Your task to perform on an android device: change keyboard looks Image 0: 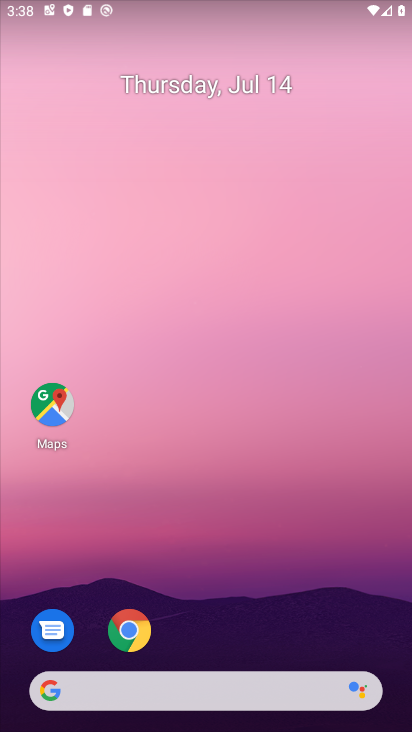
Step 0: drag from (222, 725) to (221, 601)
Your task to perform on an android device: change keyboard looks Image 1: 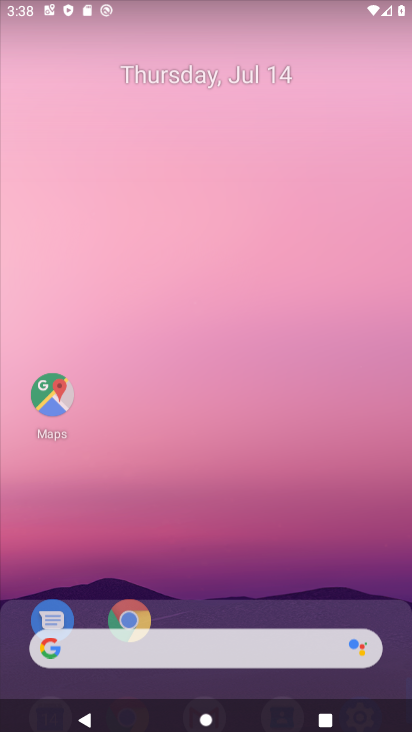
Step 1: drag from (212, 270) to (212, 93)
Your task to perform on an android device: change keyboard looks Image 2: 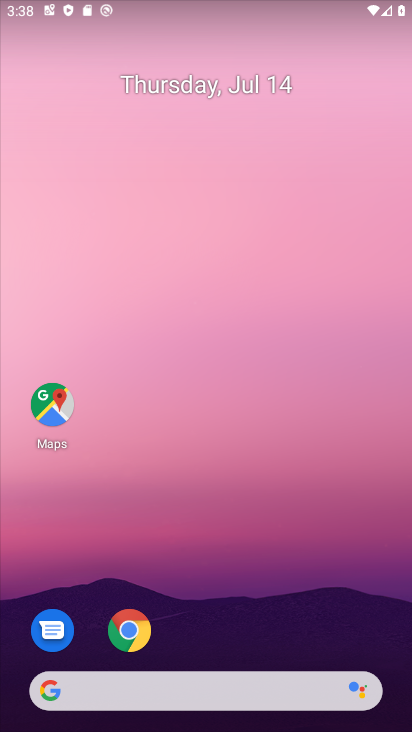
Step 2: drag from (202, 722) to (221, 186)
Your task to perform on an android device: change keyboard looks Image 3: 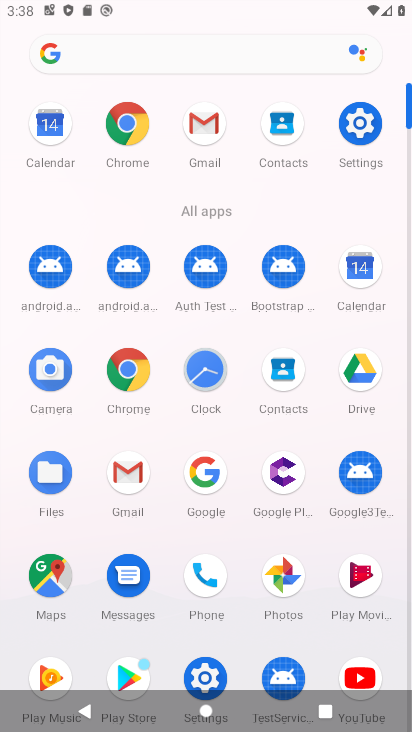
Step 3: click (350, 130)
Your task to perform on an android device: change keyboard looks Image 4: 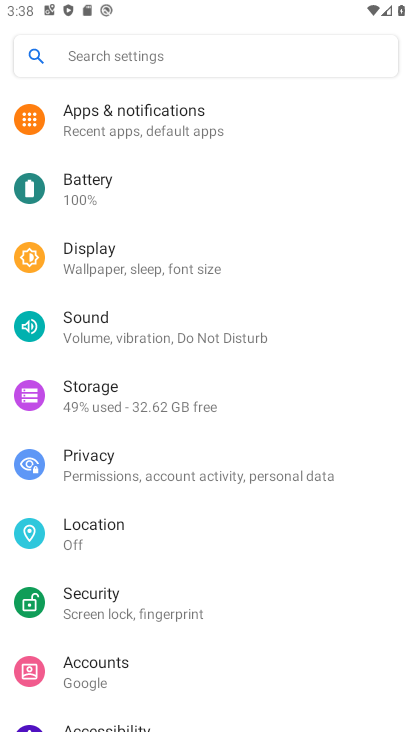
Step 4: drag from (167, 717) to (162, 613)
Your task to perform on an android device: change keyboard looks Image 5: 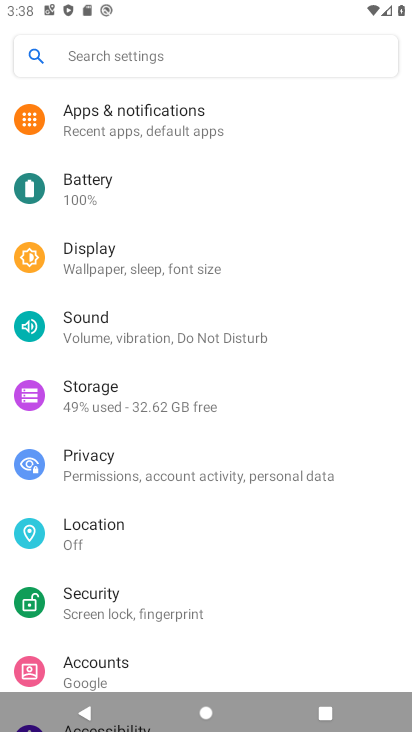
Step 5: drag from (161, 355) to (161, 245)
Your task to perform on an android device: change keyboard looks Image 6: 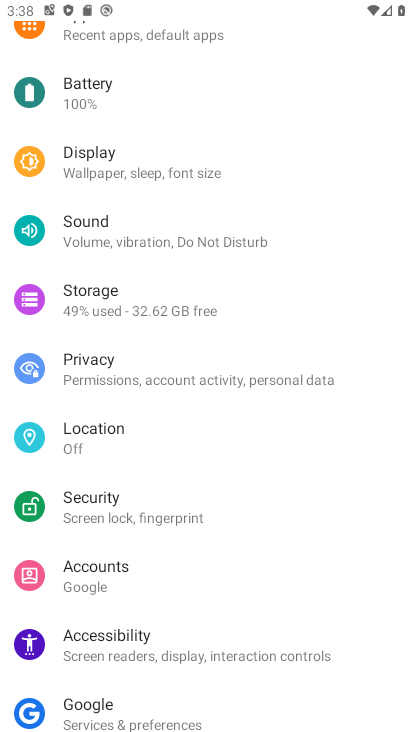
Step 6: drag from (205, 689) to (221, 270)
Your task to perform on an android device: change keyboard looks Image 7: 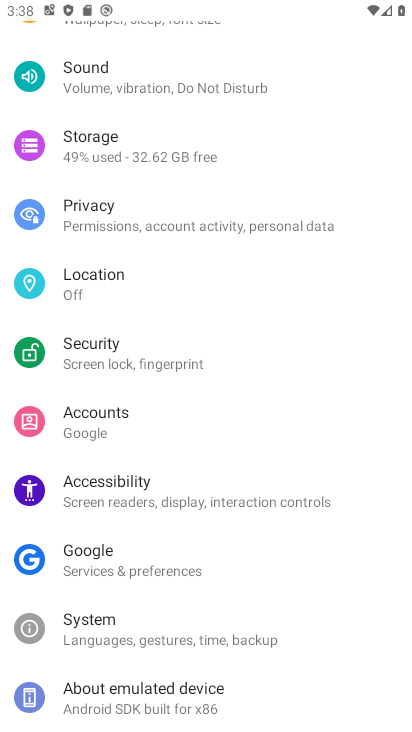
Step 7: click (103, 629)
Your task to perform on an android device: change keyboard looks Image 8: 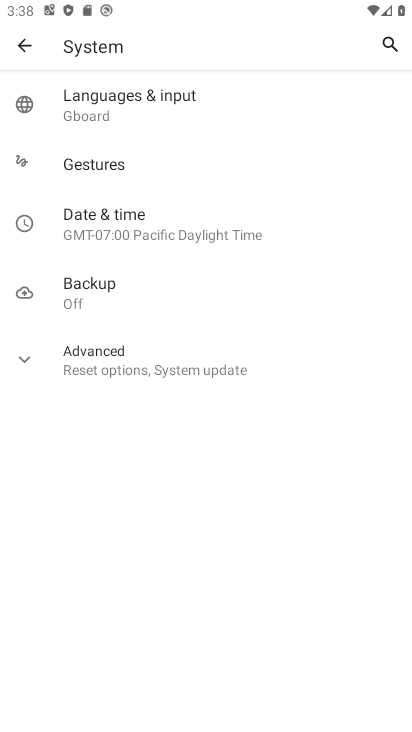
Step 8: click (98, 100)
Your task to perform on an android device: change keyboard looks Image 9: 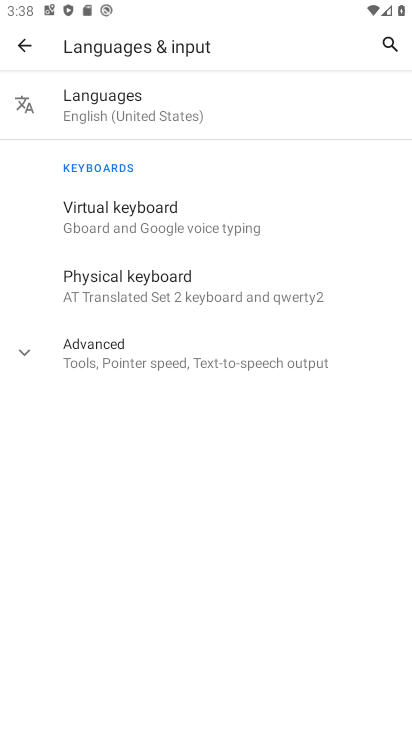
Step 9: click (97, 206)
Your task to perform on an android device: change keyboard looks Image 10: 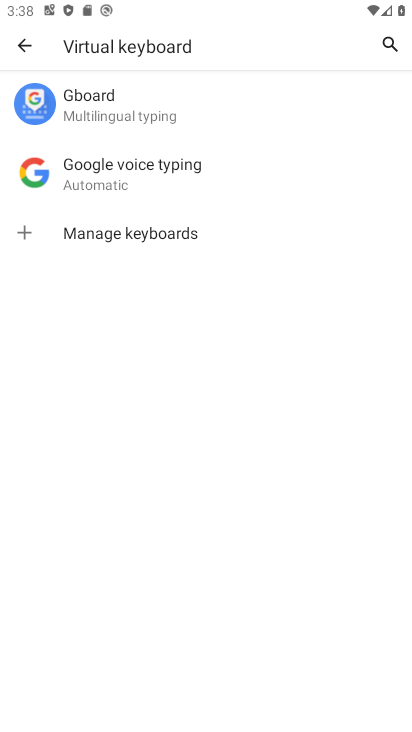
Step 10: click (81, 98)
Your task to perform on an android device: change keyboard looks Image 11: 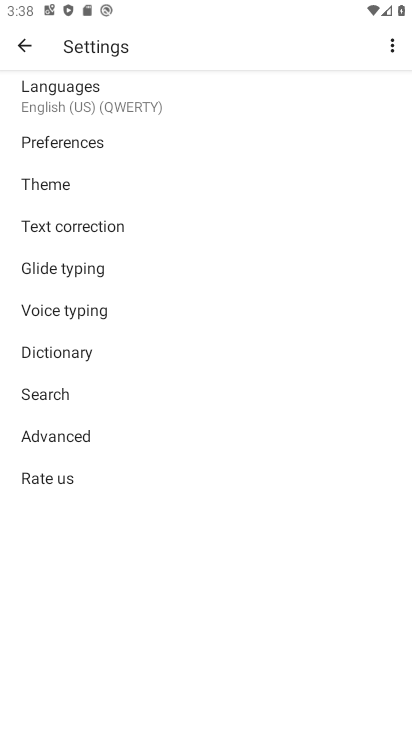
Step 11: click (48, 181)
Your task to perform on an android device: change keyboard looks Image 12: 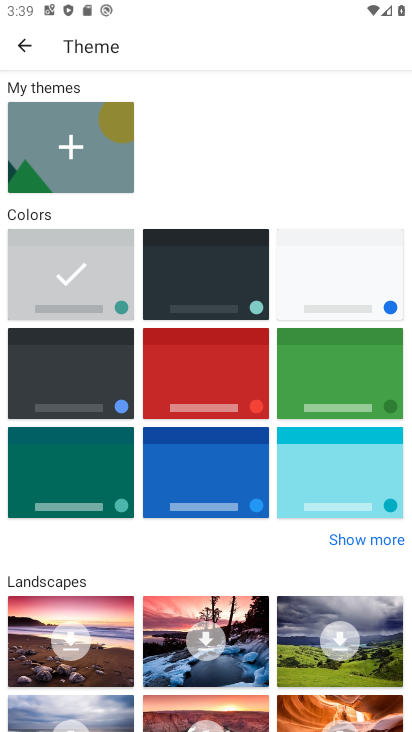
Step 12: click (227, 287)
Your task to perform on an android device: change keyboard looks Image 13: 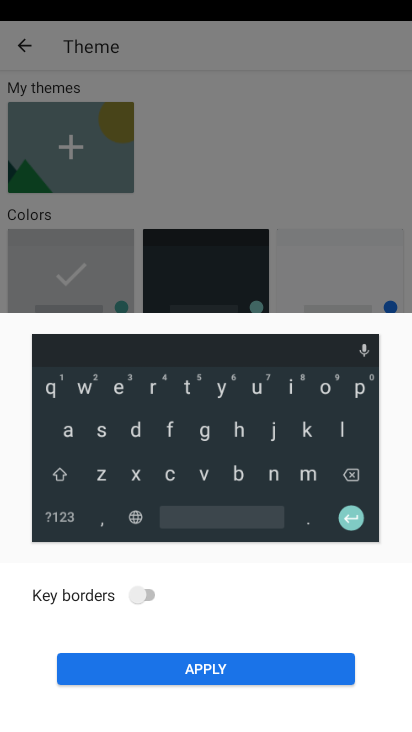
Step 13: click (144, 596)
Your task to perform on an android device: change keyboard looks Image 14: 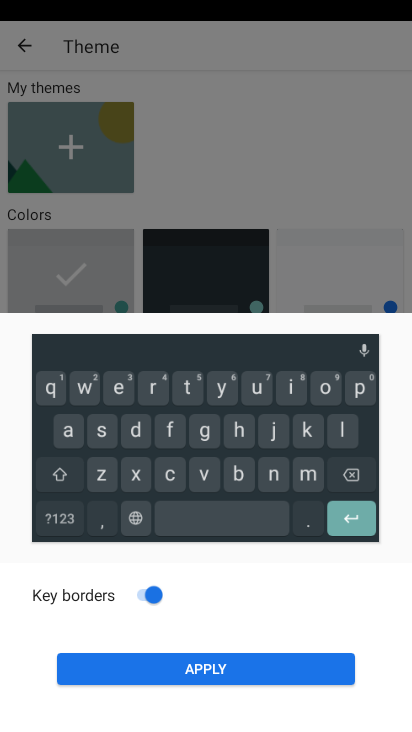
Step 14: click (217, 670)
Your task to perform on an android device: change keyboard looks Image 15: 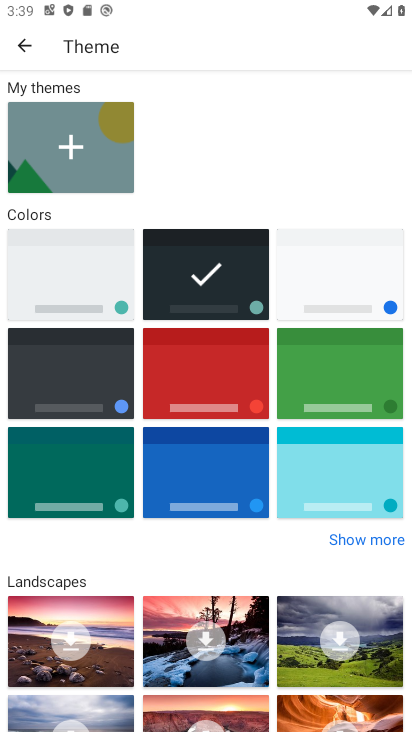
Step 15: task complete